Your task to perform on an android device: change keyboard looks Image 0: 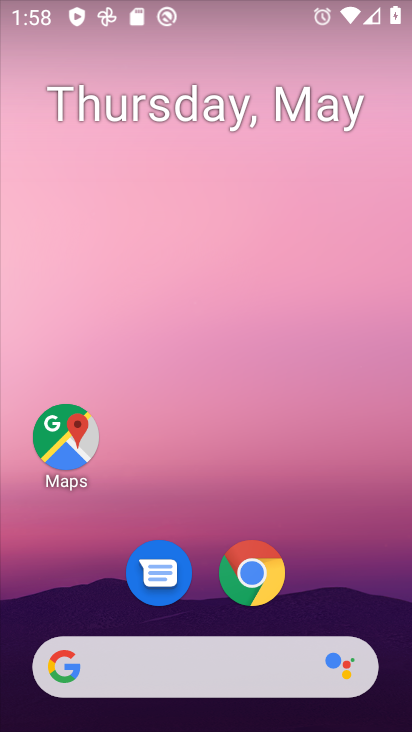
Step 0: drag from (390, 540) to (384, 59)
Your task to perform on an android device: change keyboard looks Image 1: 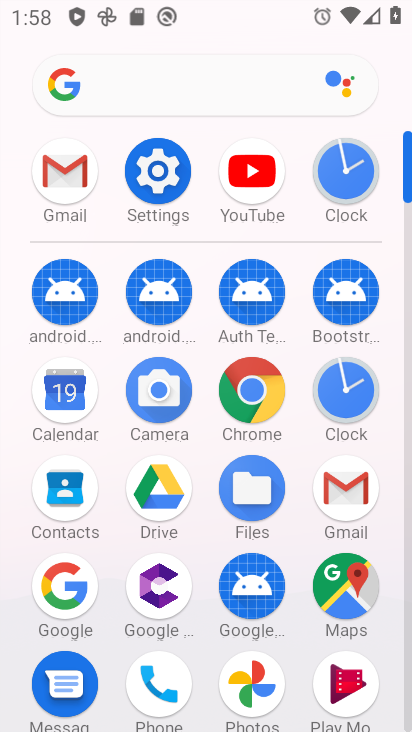
Step 1: click (165, 181)
Your task to perform on an android device: change keyboard looks Image 2: 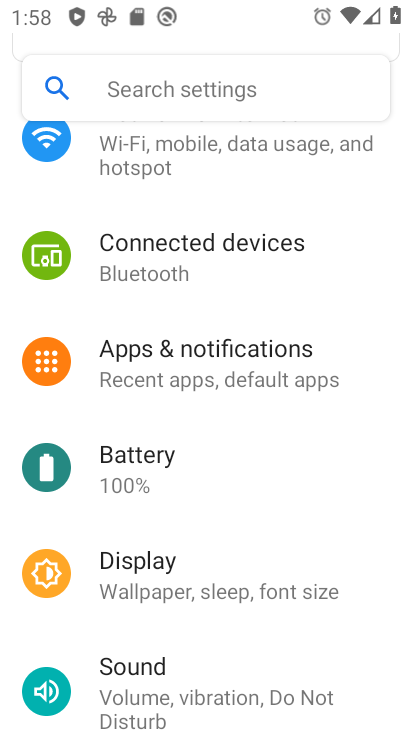
Step 2: drag from (367, 708) to (383, 180)
Your task to perform on an android device: change keyboard looks Image 3: 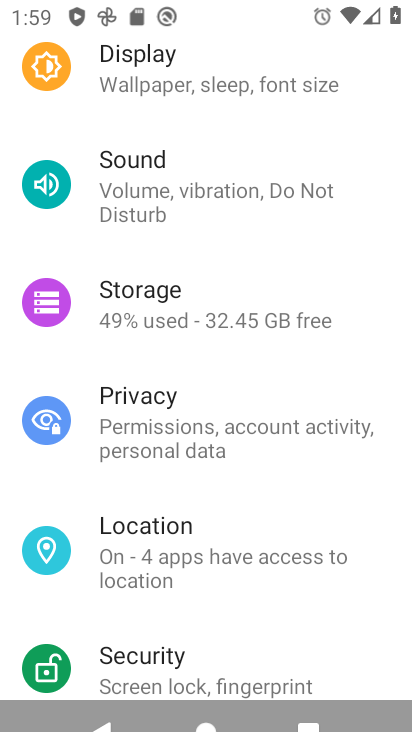
Step 3: drag from (346, 643) to (362, 163)
Your task to perform on an android device: change keyboard looks Image 4: 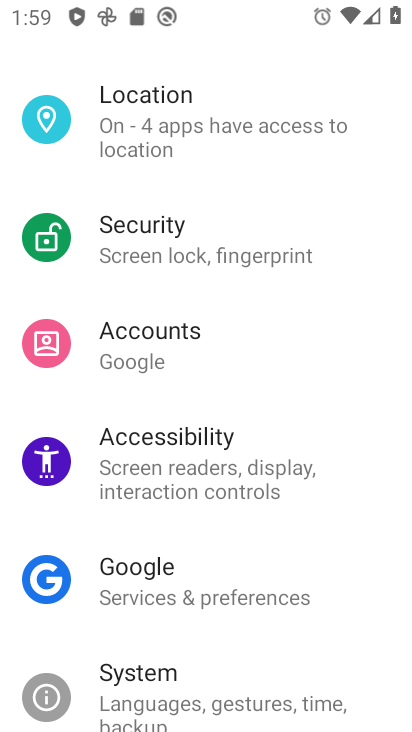
Step 4: click (127, 685)
Your task to perform on an android device: change keyboard looks Image 5: 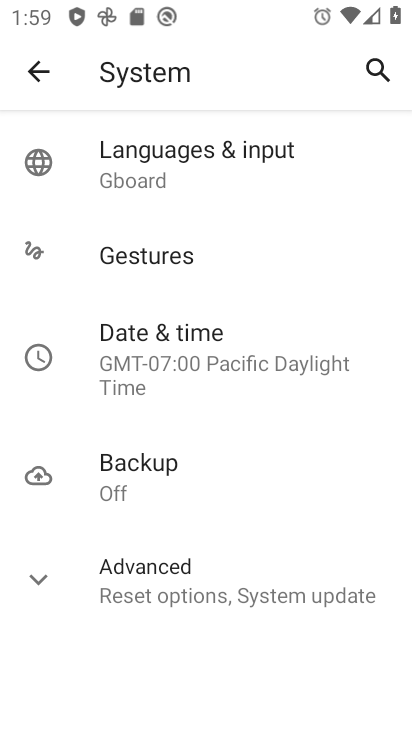
Step 5: click (137, 166)
Your task to perform on an android device: change keyboard looks Image 6: 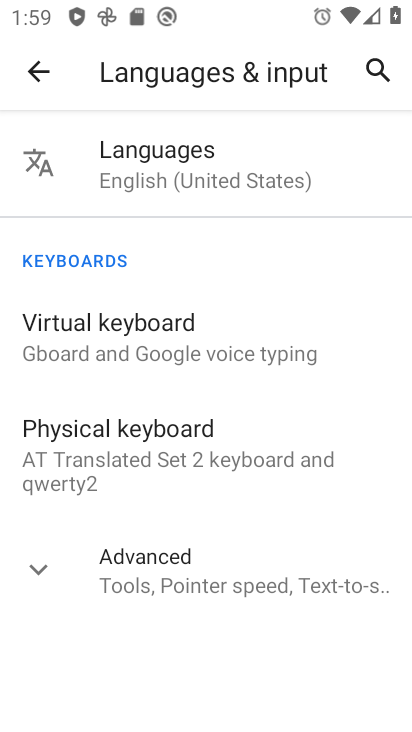
Step 6: click (92, 340)
Your task to perform on an android device: change keyboard looks Image 7: 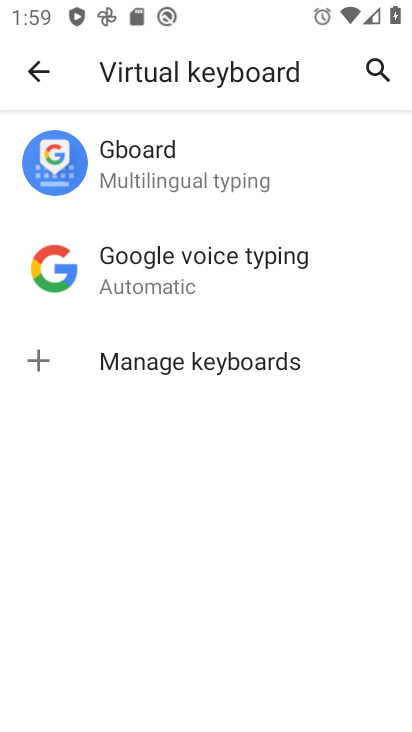
Step 7: click (137, 160)
Your task to perform on an android device: change keyboard looks Image 8: 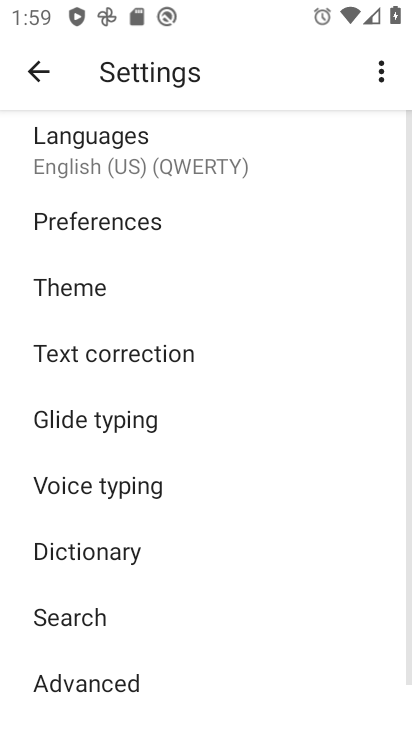
Step 8: click (63, 279)
Your task to perform on an android device: change keyboard looks Image 9: 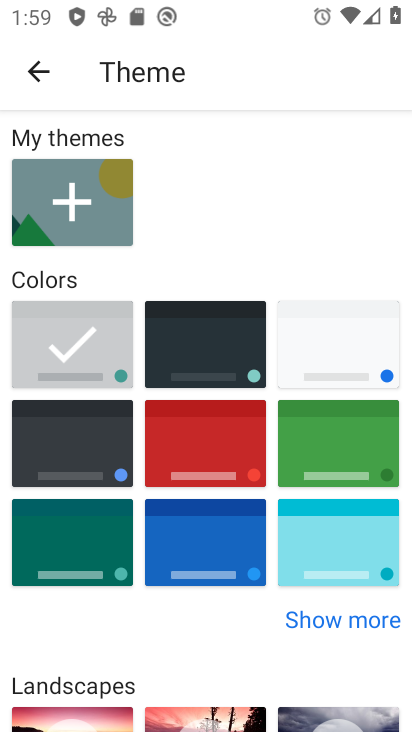
Step 9: click (342, 437)
Your task to perform on an android device: change keyboard looks Image 10: 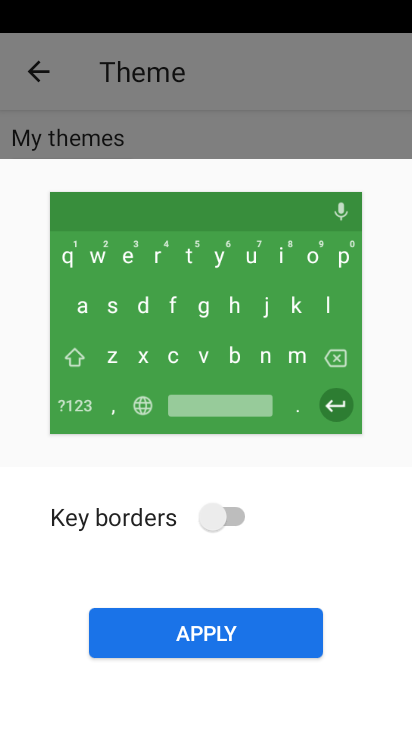
Step 10: click (235, 512)
Your task to perform on an android device: change keyboard looks Image 11: 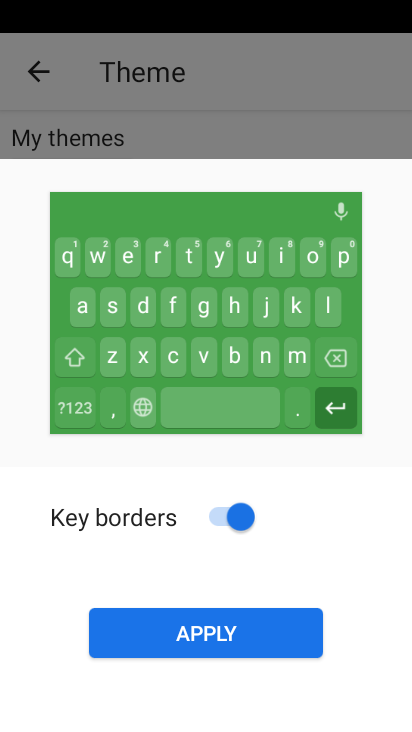
Step 11: click (189, 627)
Your task to perform on an android device: change keyboard looks Image 12: 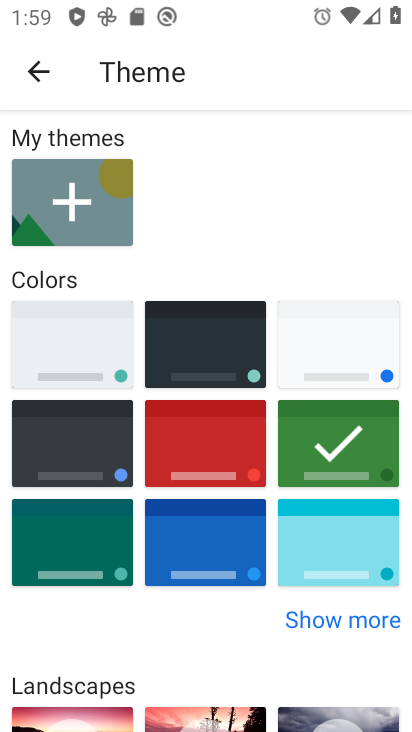
Step 12: task complete